Your task to perform on an android device: Go to calendar. Show me events next week Image 0: 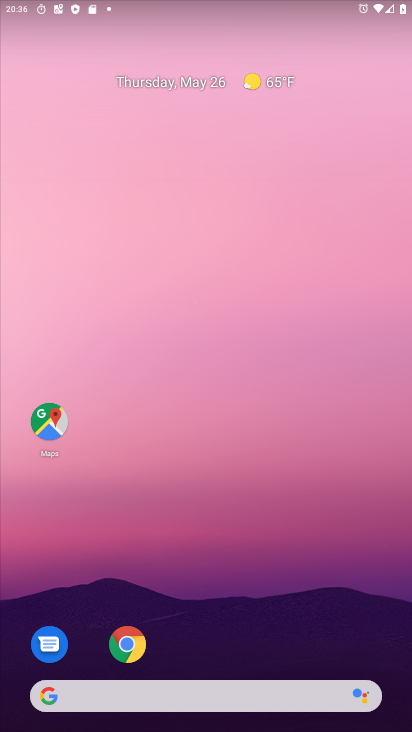
Step 0: drag from (186, 578) to (185, 79)
Your task to perform on an android device: Go to calendar. Show me events next week Image 1: 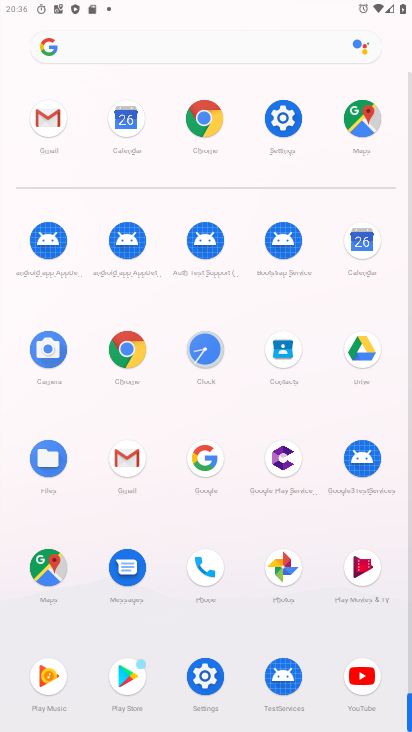
Step 1: click (363, 227)
Your task to perform on an android device: Go to calendar. Show me events next week Image 2: 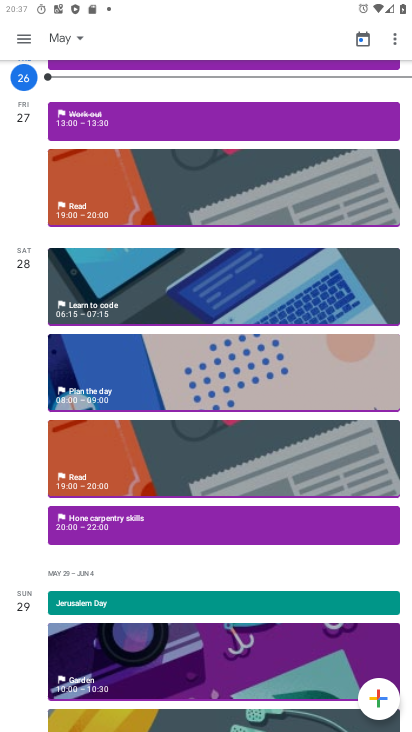
Step 2: click (76, 38)
Your task to perform on an android device: Go to calendar. Show me events next week Image 3: 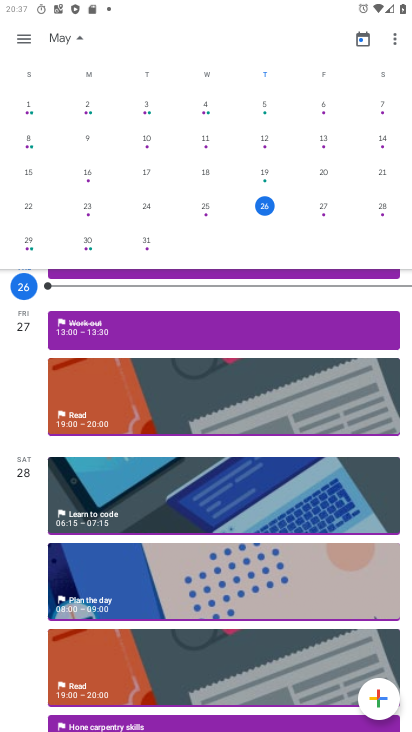
Step 3: click (95, 238)
Your task to perform on an android device: Go to calendar. Show me events next week Image 4: 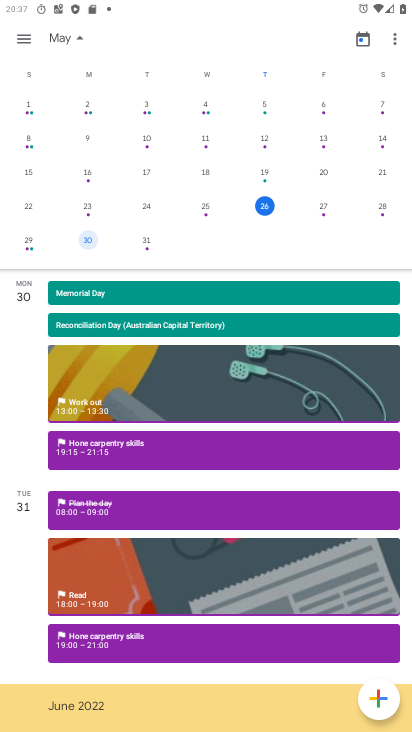
Step 4: task complete